Your task to perform on an android device: check google app version Image 0: 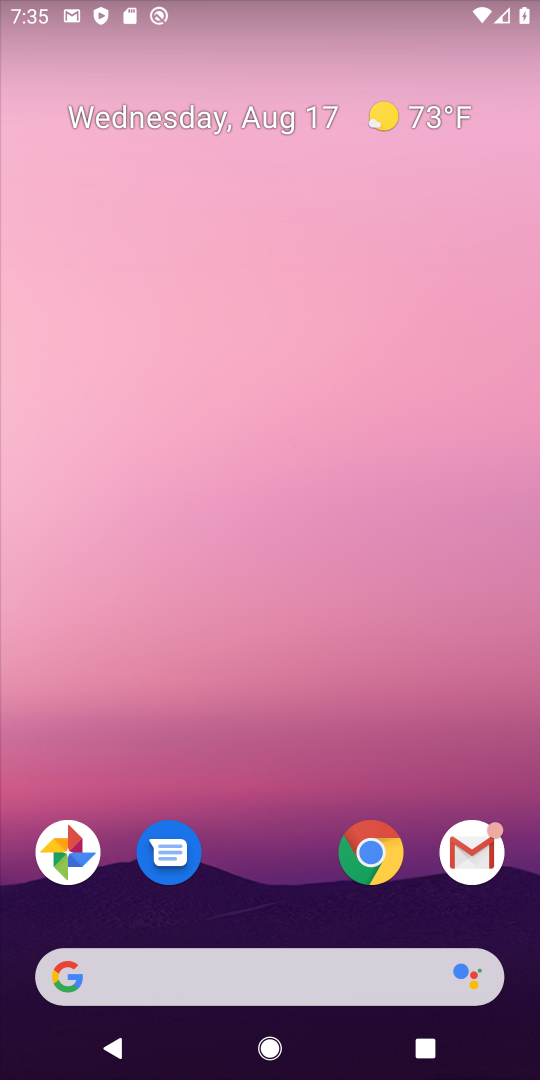
Step 0: drag from (280, 841) to (237, 112)
Your task to perform on an android device: check google app version Image 1: 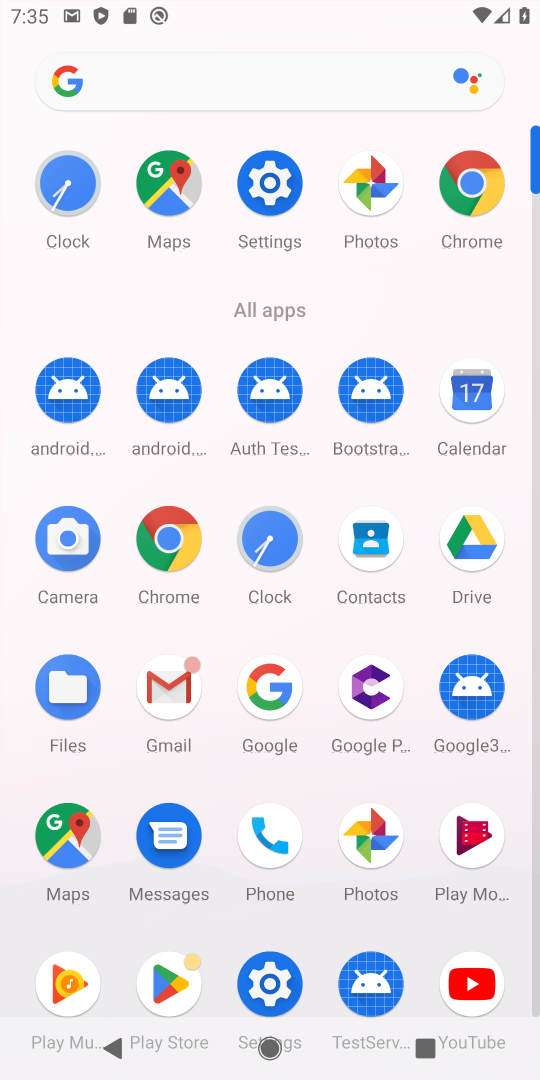
Step 1: click (264, 679)
Your task to perform on an android device: check google app version Image 2: 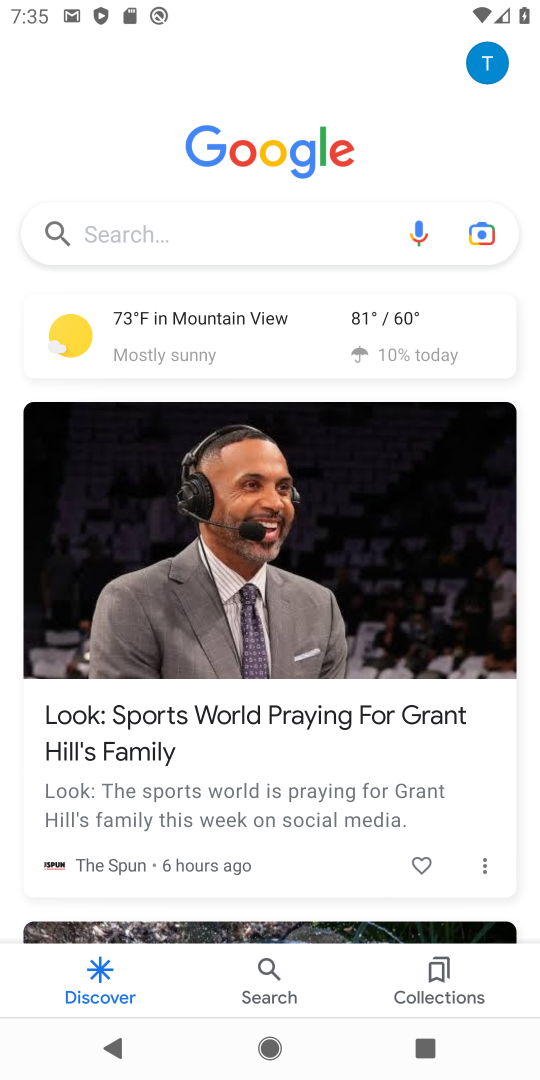
Step 2: click (487, 53)
Your task to perform on an android device: check google app version Image 3: 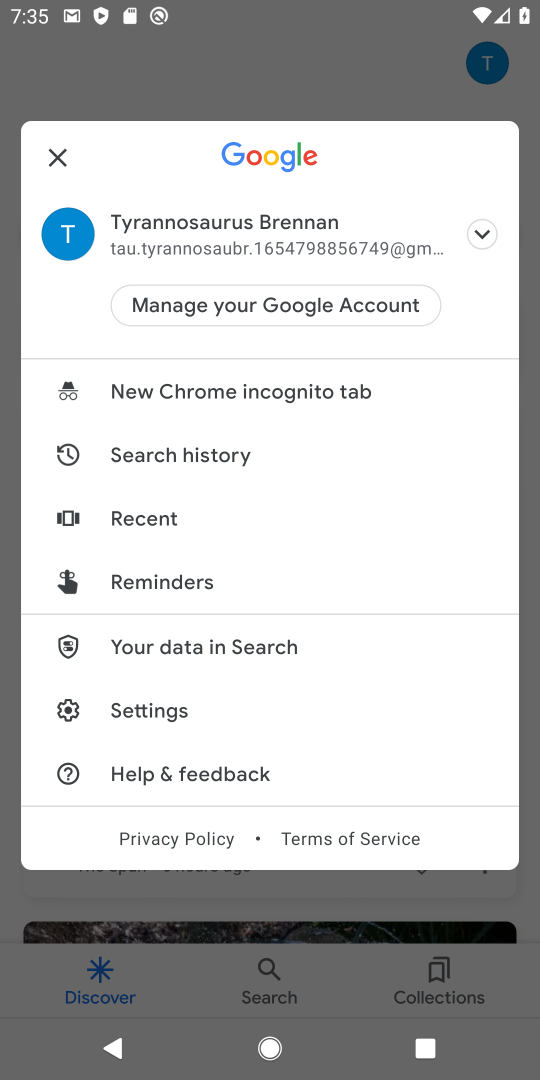
Step 3: click (149, 705)
Your task to perform on an android device: check google app version Image 4: 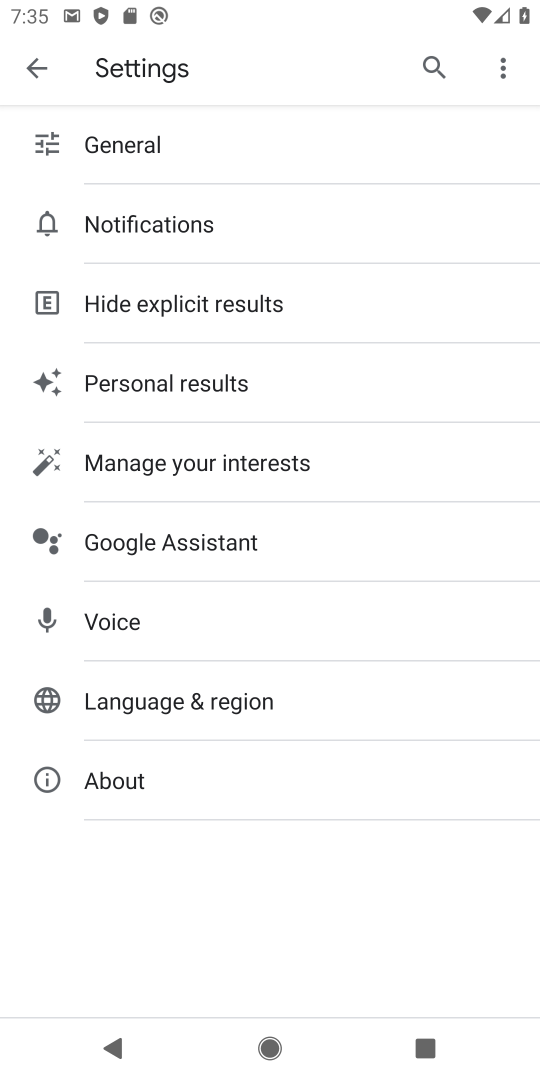
Step 4: click (173, 773)
Your task to perform on an android device: check google app version Image 5: 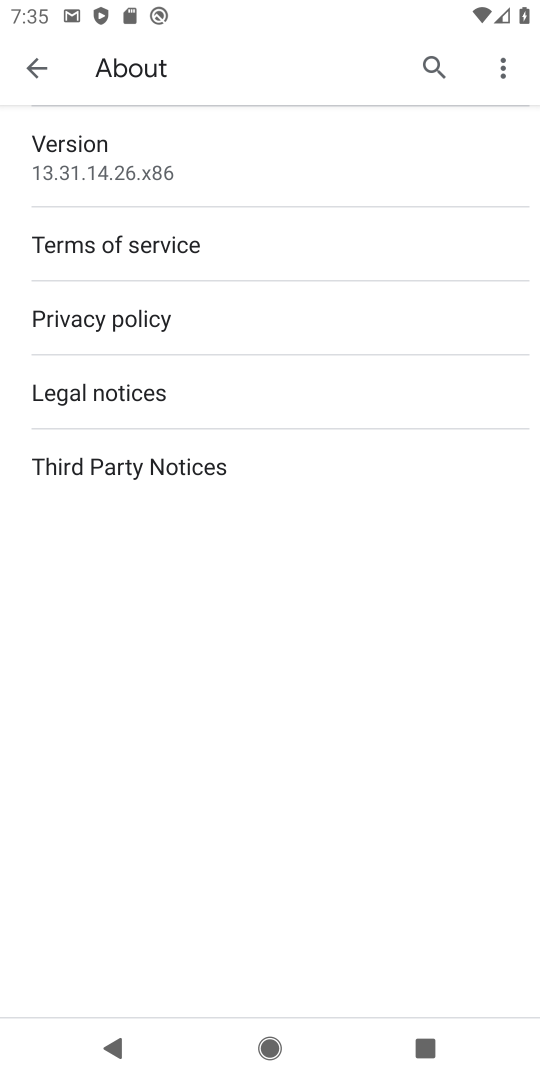
Step 5: task complete